Your task to perform on an android device: open a bookmark in the chrome app Image 0: 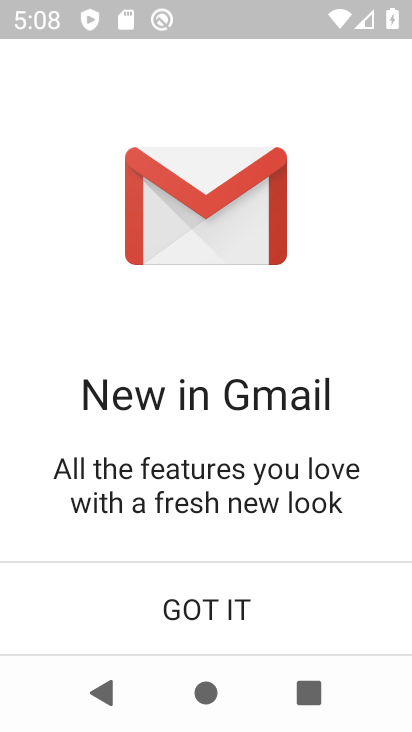
Step 0: click (205, 608)
Your task to perform on an android device: open a bookmark in the chrome app Image 1: 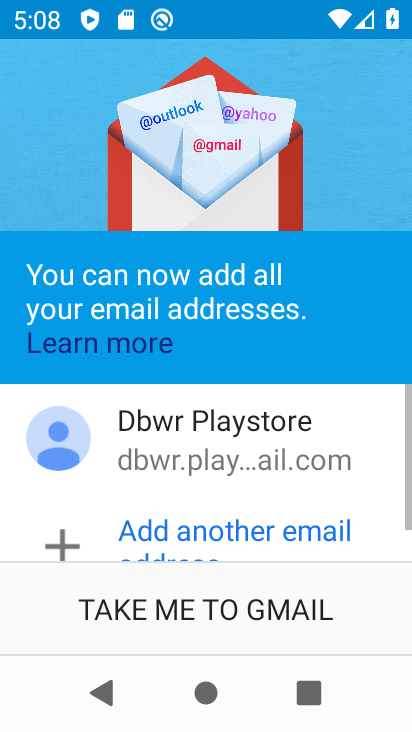
Step 1: click (247, 612)
Your task to perform on an android device: open a bookmark in the chrome app Image 2: 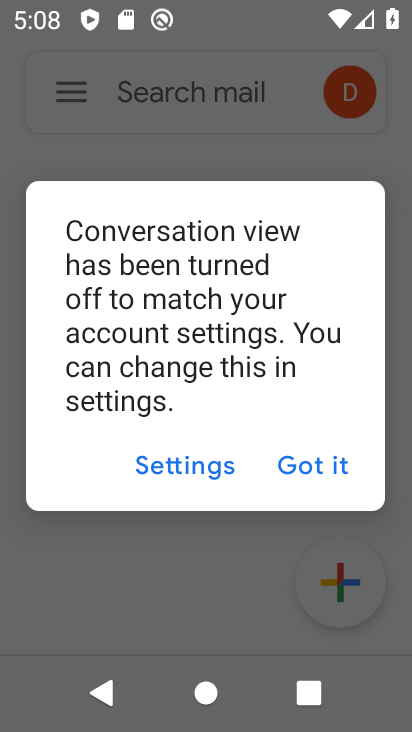
Step 2: click (311, 463)
Your task to perform on an android device: open a bookmark in the chrome app Image 3: 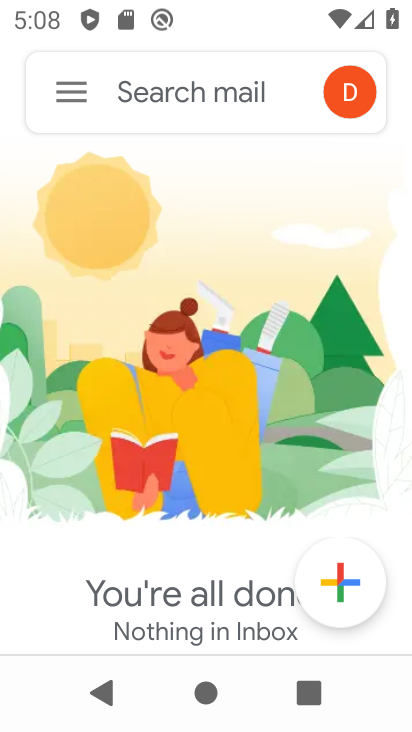
Step 3: press home button
Your task to perform on an android device: open a bookmark in the chrome app Image 4: 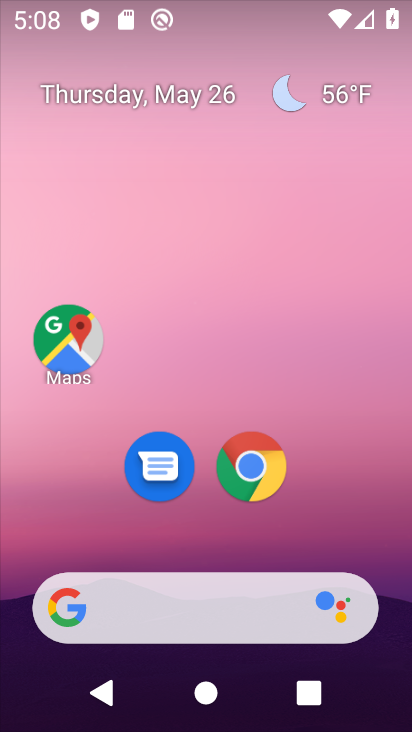
Step 4: click (257, 465)
Your task to perform on an android device: open a bookmark in the chrome app Image 5: 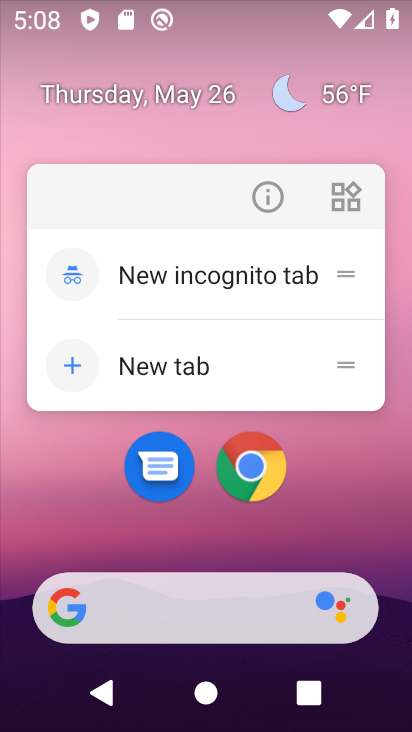
Step 5: click (292, 488)
Your task to perform on an android device: open a bookmark in the chrome app Image 6: 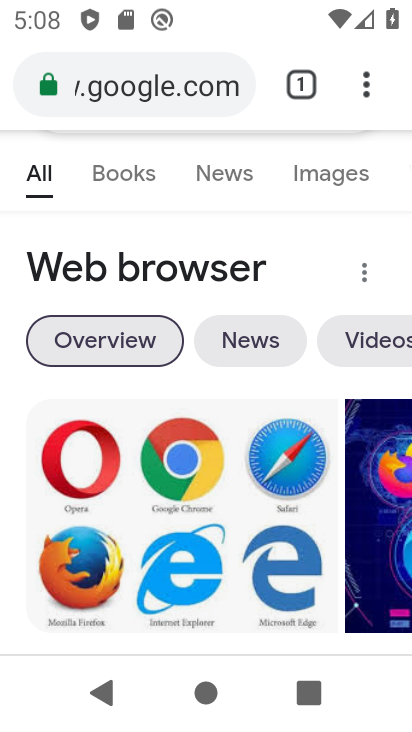
Step 6: task complete